Your task to perform on an android device: Go to sound settings Image 0: 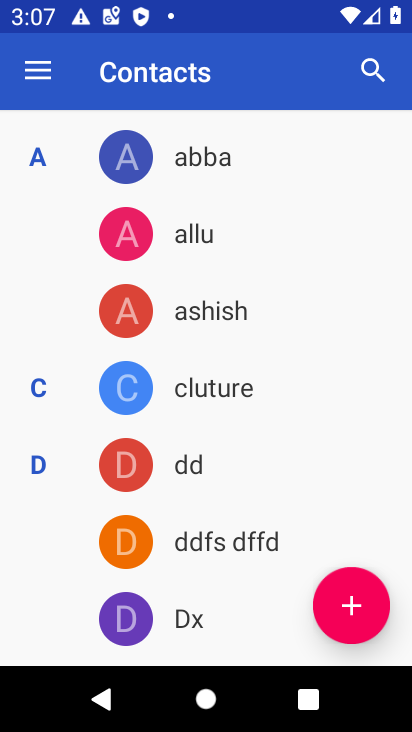
Step 0: press home button
Your task to perform on an android device: Go to sound settings Image 1: 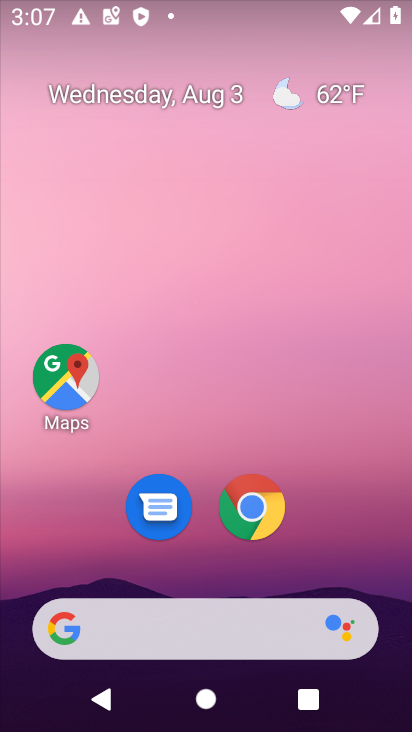
Step 1: drag from (336, 567) to (134, 142)
Your task to perform on an android device: Go to sound settings Image 2: 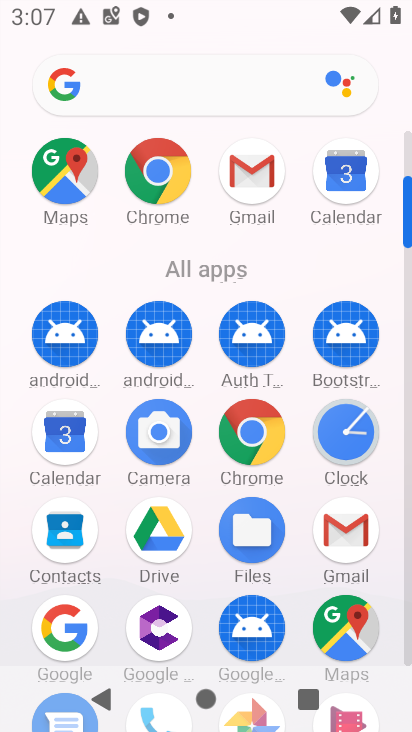
Step 2: drag from (209, 570) to (118, 161)
Your task to perform on an android device: Go to sound settings Image 3: 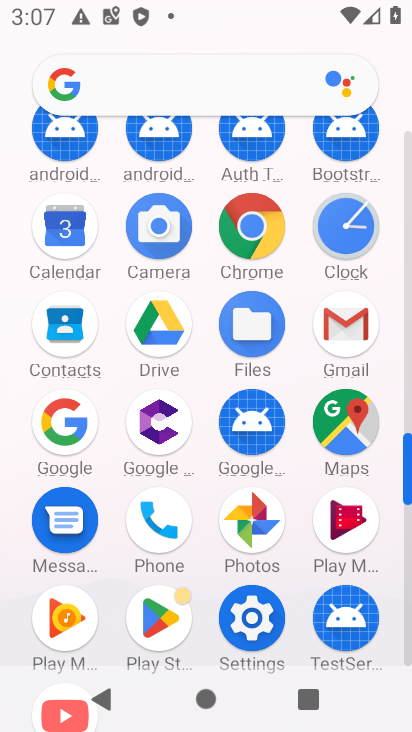
Step 3: click (250, 613)
Your task to perform on an android device: Go to sound settings Image 4: 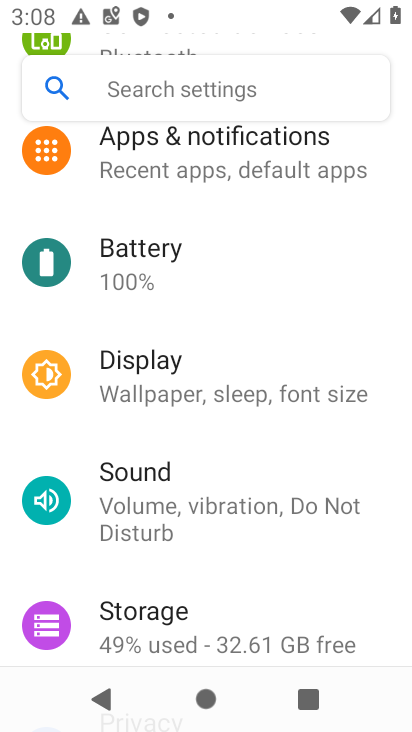
Step 4: click (204, 520)
Your task to perform on an android device: Go to sound settings Image 5: 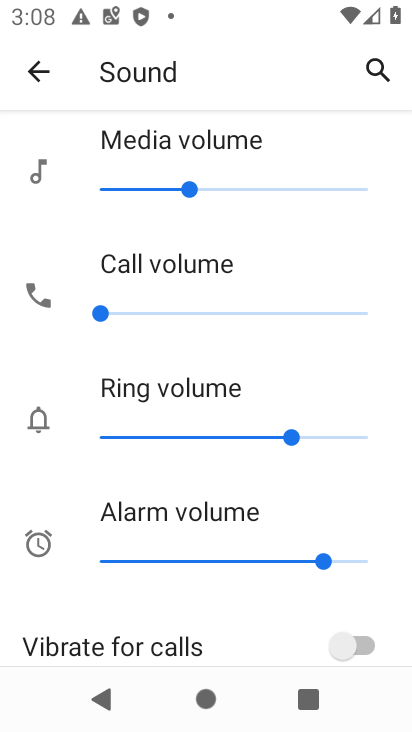
Step 5: task complete